Your task to perform on an android device: Open Youtube and go to the subscriptions tab Image 0: 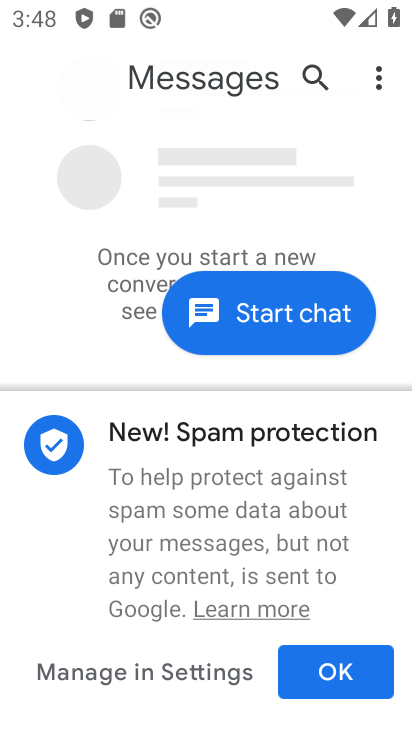
Step 0: press home button
Your task to perform on an android device: Open Youtube and go to the subscriptions tab Image 1: 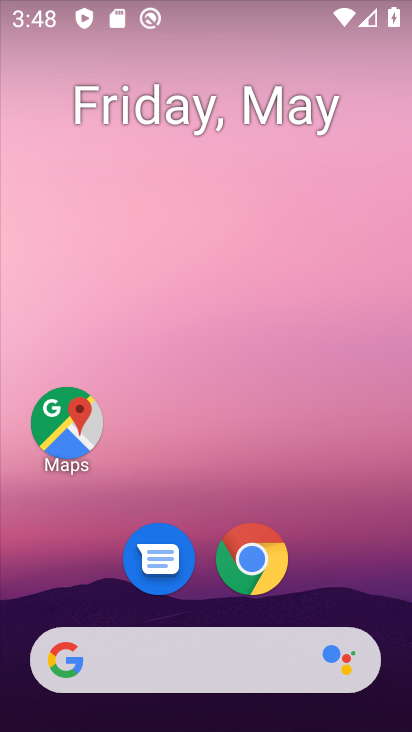
Step 1: drag from (333, 555) to (337, 17)
Your task to perform on an android device: Open Youtube and go to the subscriptions tab Image 2: 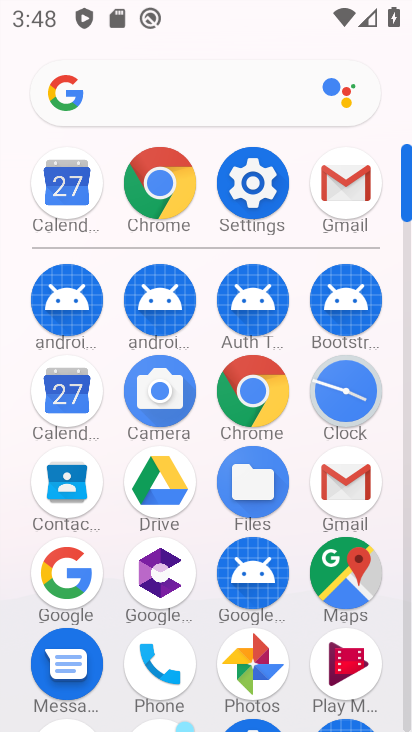
Step 2: drag from (298, 683) to (341, 232)
Your task to perform on an android device: Open Youtube and go to the subscriptions tab Image 3: 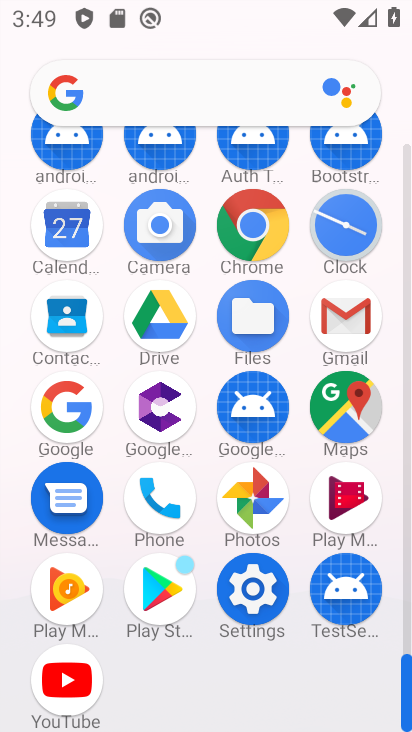
Step 3: click (68, 676)
Your task to perform on an android device: Open Youtube and go to the subscriptions tab Image 4: 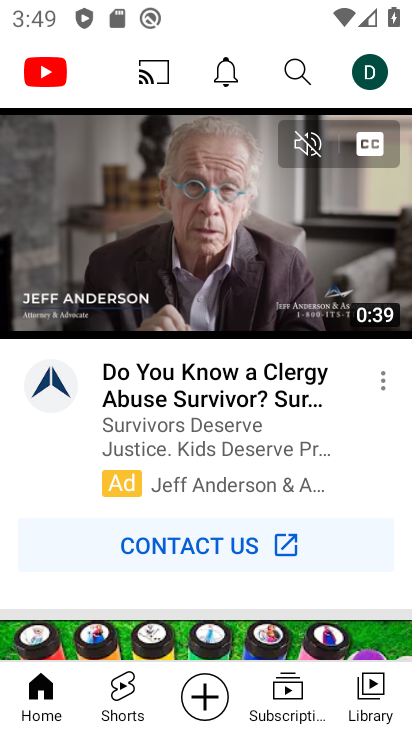
Step 4: click (279, 687)
Your task to perform on an android device: Open Youtube and go to the subscriptions tab Image 5: 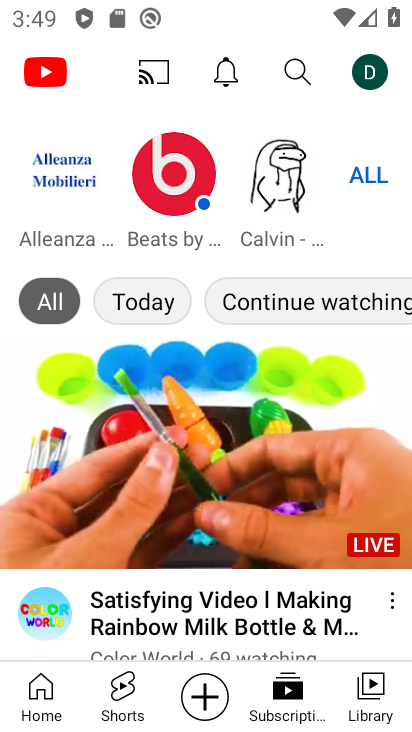
Step 5: task complete